Your task to perform on an android device: What's on my calendar today? Image 0: 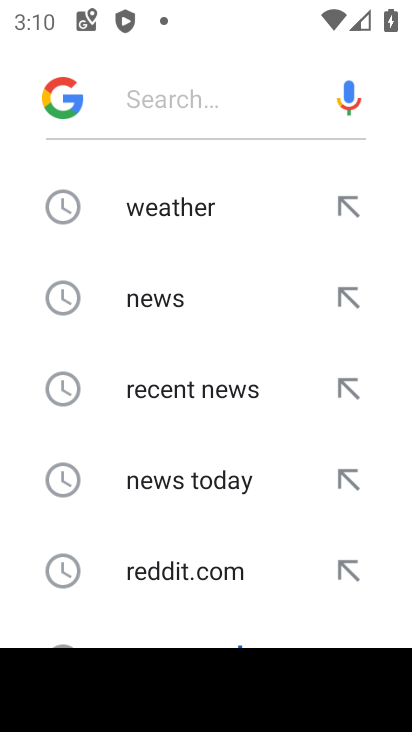
Step 0: press home button
Your task to perform on an android device: What's on my calendar today? Image 1: 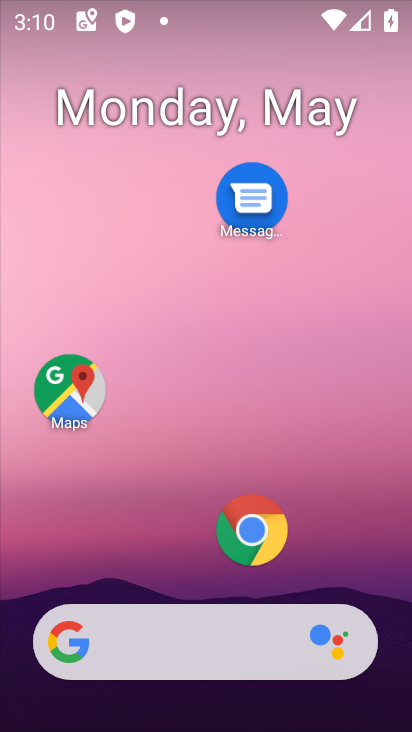
Step 1: drag from (217, 573) to (277, 103)
Your task to perform on an android device: What's on my calendar today? Image 2: 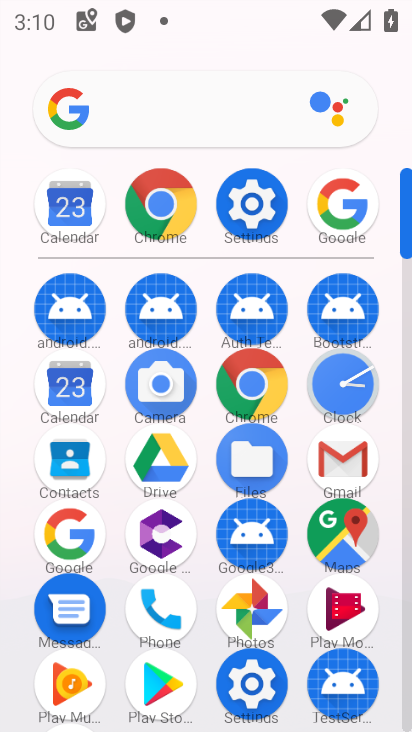
Step 2: click (48, 391)
Your task to perform on an android device: What's on my calendar today? Image 3: 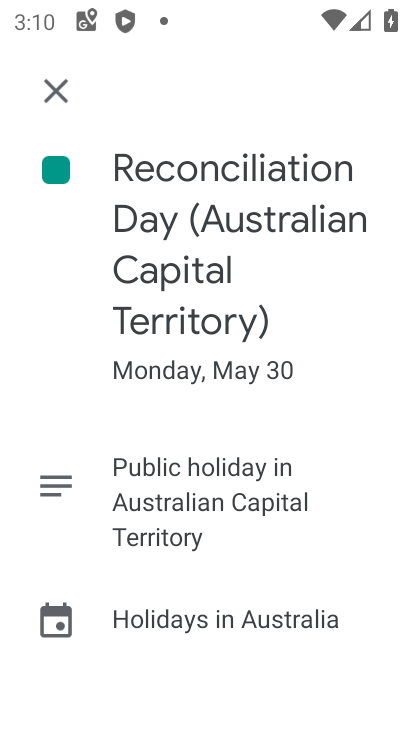
Step 3: click (78, 87)
Your task to perform on an android device: What's on my calendar today? Image 4: 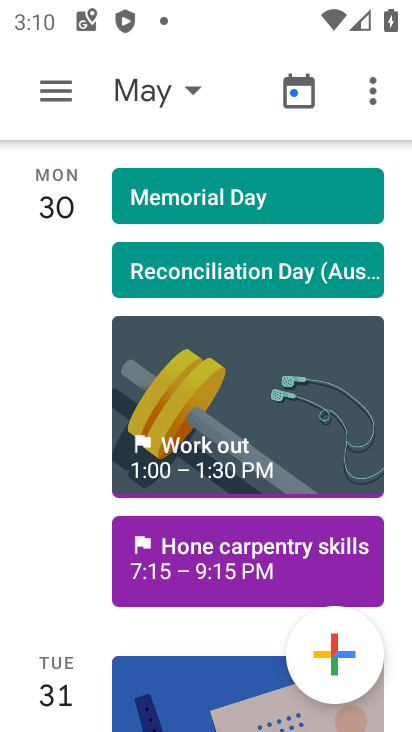
Step 4: press back button
Your task to perform on an android device: What's on my calendar today? Image 5: 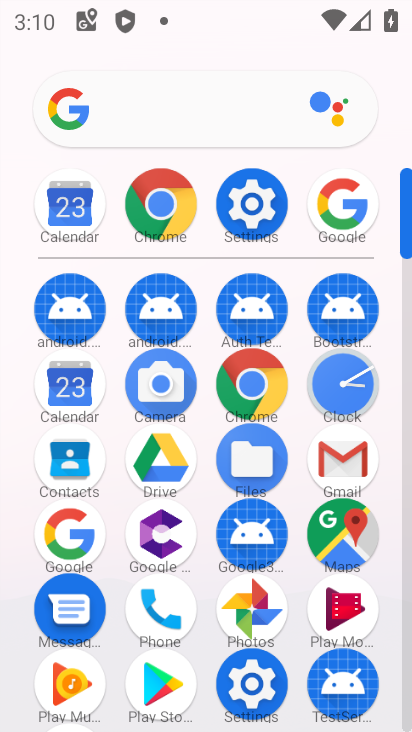
Step 5: click (63, 386)
Your task to perform on an android device: What's on my calendar today? Image 6: 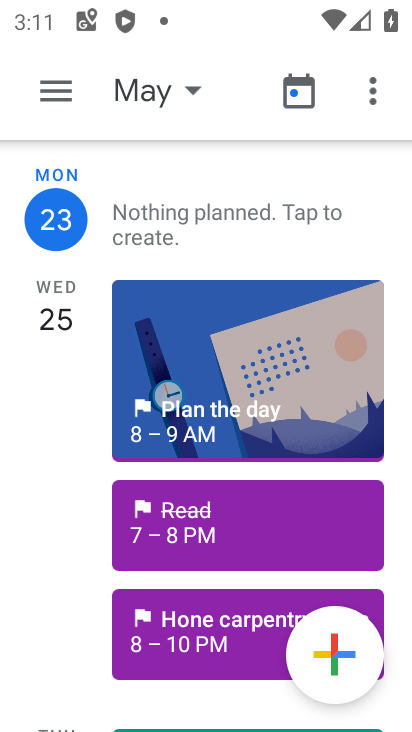
Step 6: task complete